Your task to perform on an android device: move an email to a new category in the gmail app Image 0: 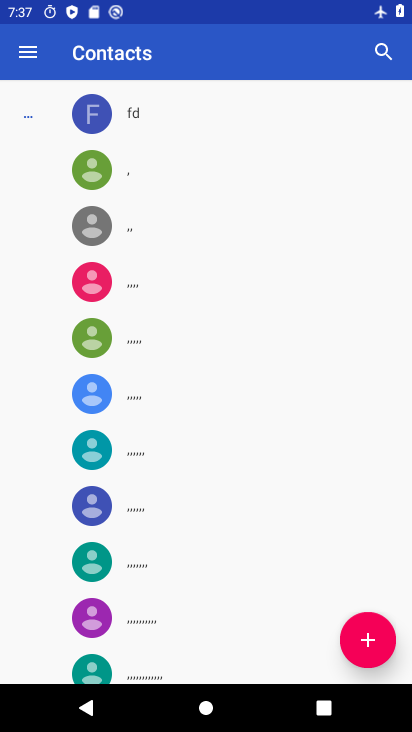
Step 0: press home button
Your task to perform on an android device: move an email to a new category in the gmail app Image 1: 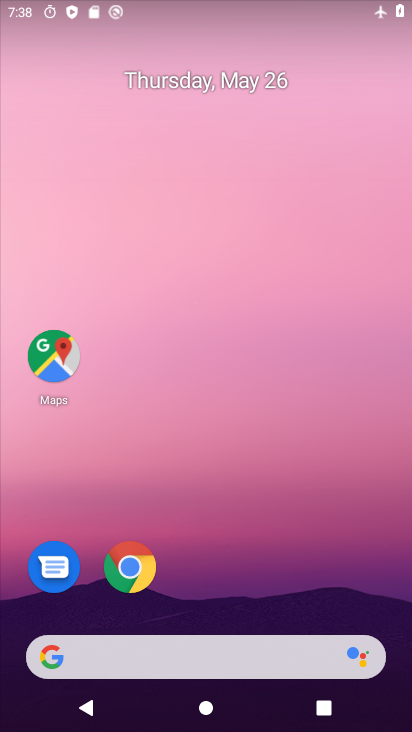
Step 1: drag from (130, 645) to (285, 73)
Your task to perform on an android device: move an email to a new category in the gmail app Image 2: 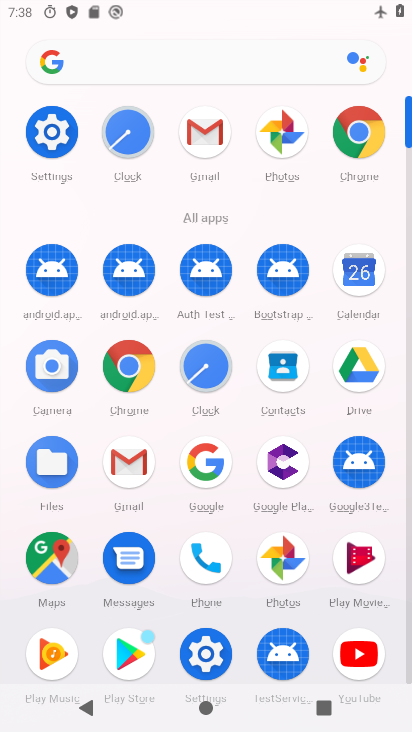
Step 2: click (199, 136)
Your task to perform on an android device: move an email to a new category in the gmail app Image 3: 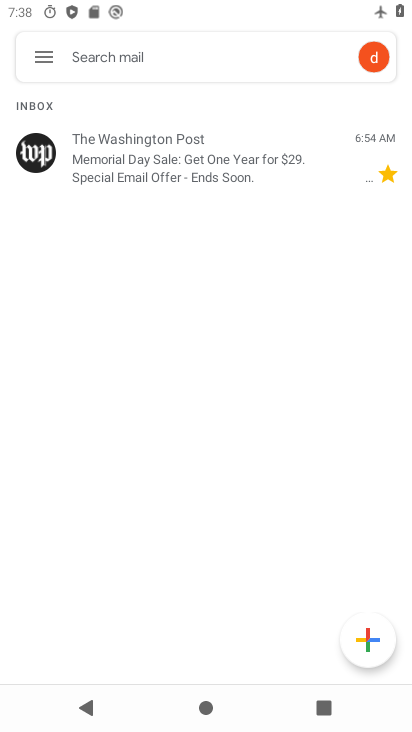
Step 3: click (138, 161)
Your task to perform on an android device: move an email to a new category in the gmail app Image 4: 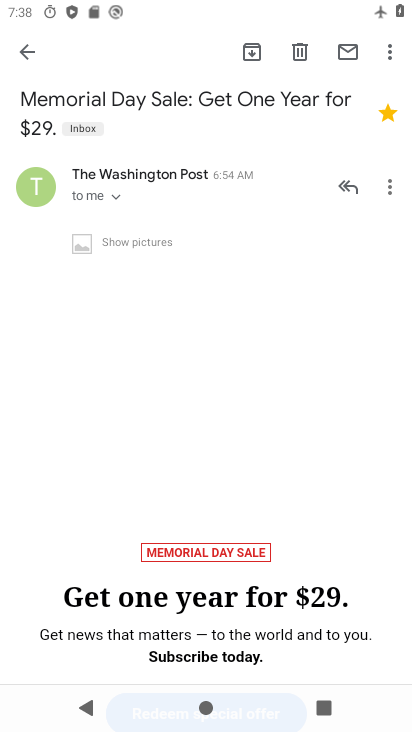
Step 4: click (28, 55)
Your task to perform on an android device: move an email to a new category in the gmail app Image 5: 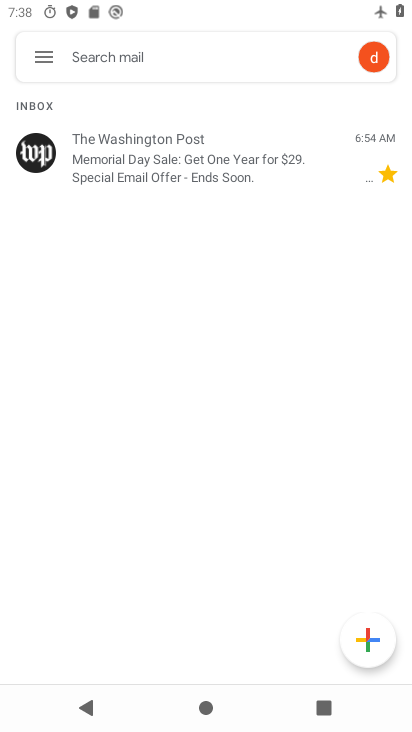
Step 5: click (47, 151)
Your task to perform on an android device: move an email to a new category in the gmail app Image 6: 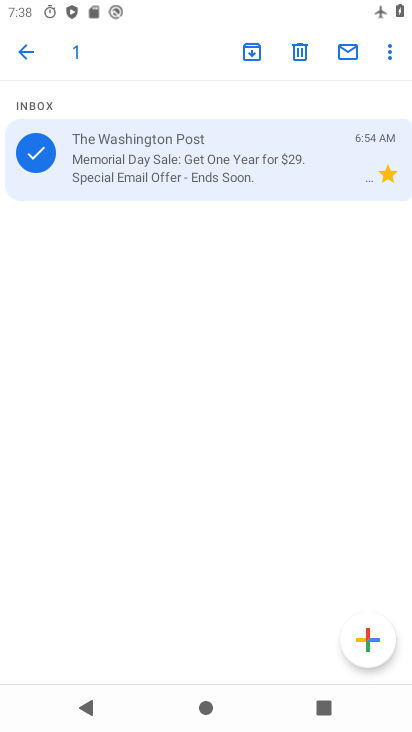
Step 6: click (392, 52)
Your task to perform on an android device: move an email to a new category in the gmail app Image 7: 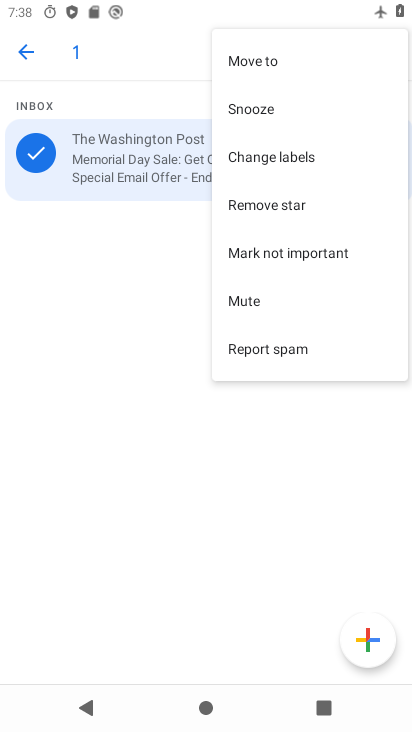
Step 7: click (341, 254)
Your task to perform on an android device: move an email to a new category in the gmail app Image 8: 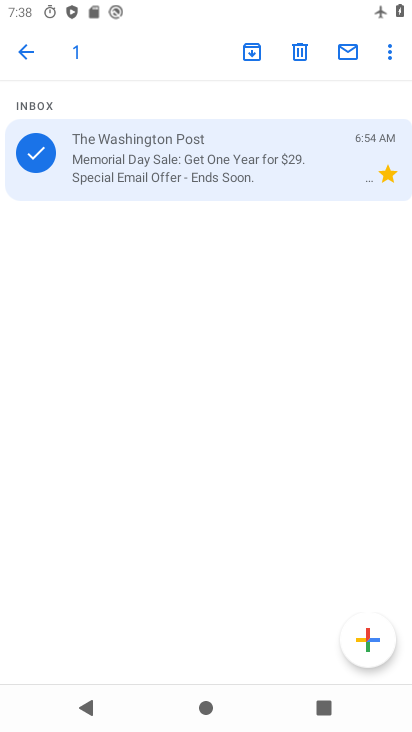
Step 8: click (247, 438)
Your task to perform on an android device: move an email to a new category in the gmail app Image 9: 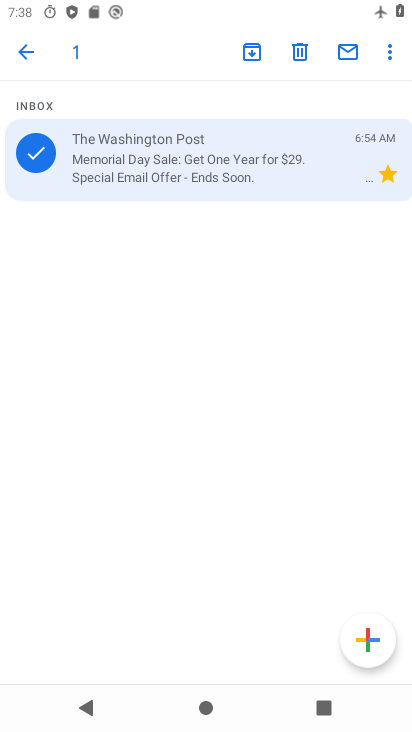
Step 9: click (46, 161)
Your task to perform on an android device: move an email to a new category in the gmail app Image 10: 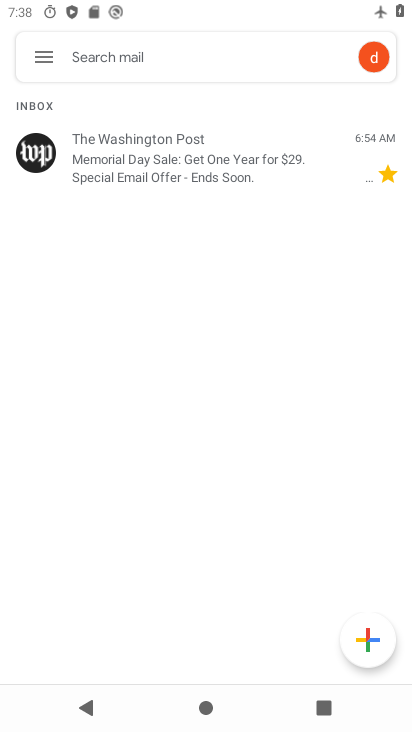
Step 10: task complete